Your task to perform on an android device: turn off wifi Image 0: 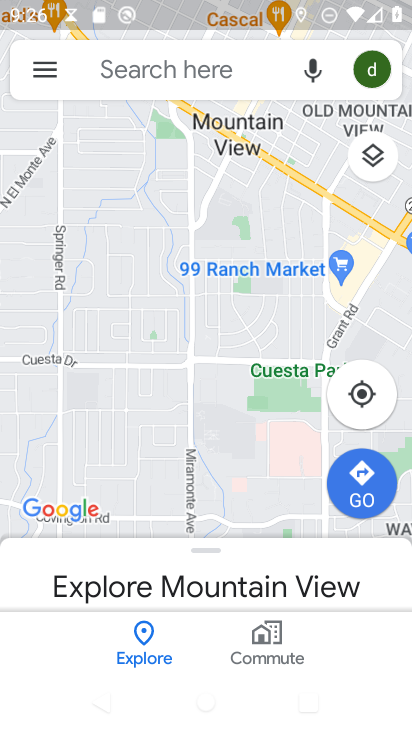
Step 0: press home button
Your task to perform on an android device: turn off wifi Image 1: 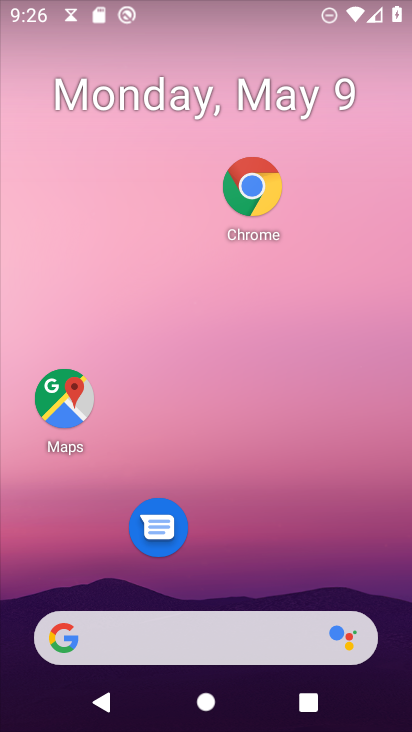
Step 1: drag from (177, 14) to (171, 548)
Your task to perform on an android device: turn off wifi Image 2: 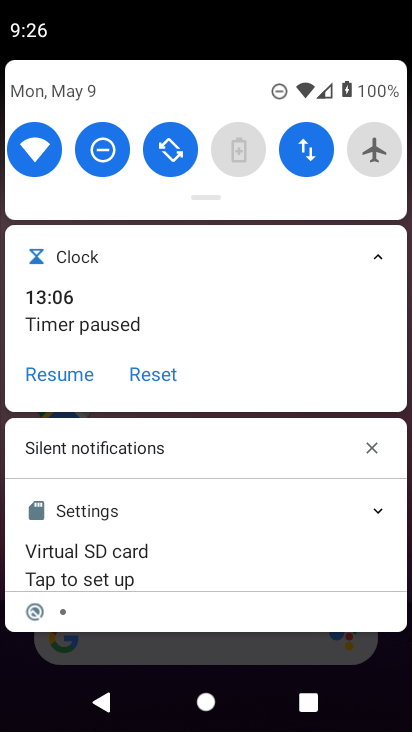
Step 2: click (36, 161)
Your task to perform on an android device: turn off wifi Image 3: 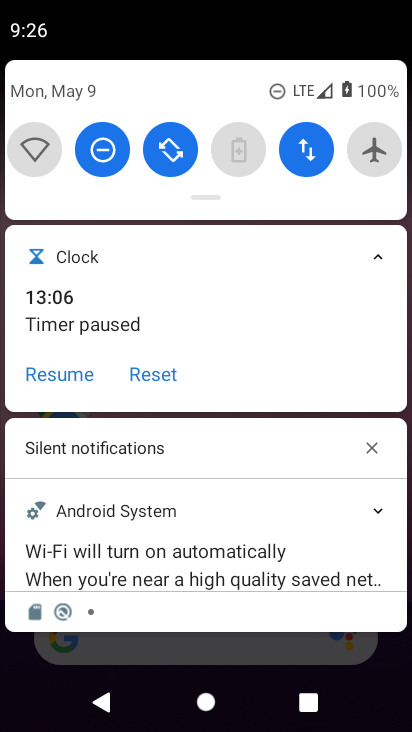
Step 3: task complete